Your task to perform on an android device: Go to privacy settings Image 0: 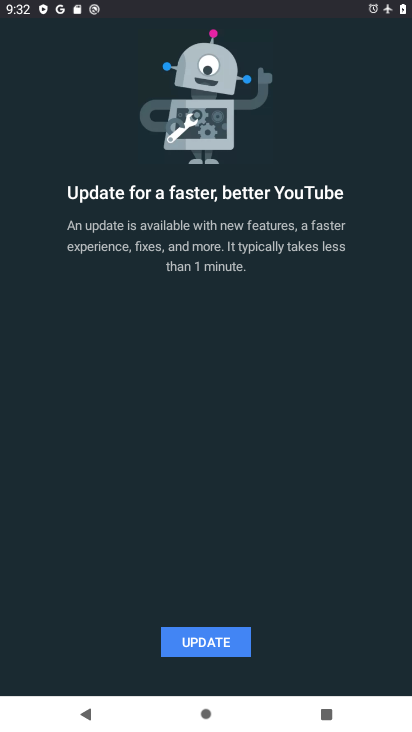
Step 0: press home button
Your task to perform on an android device: Go to privacy settings Image 1: 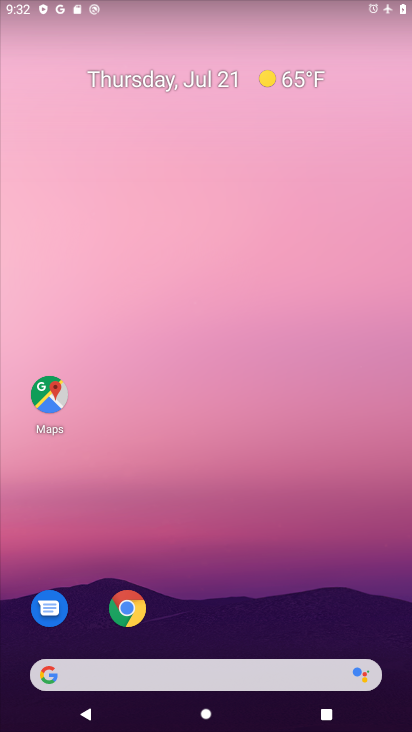
Step 1: drag from (230, 525) to (204, 209)
Your task to perform on an android device: Go to privacy settings Image 2: 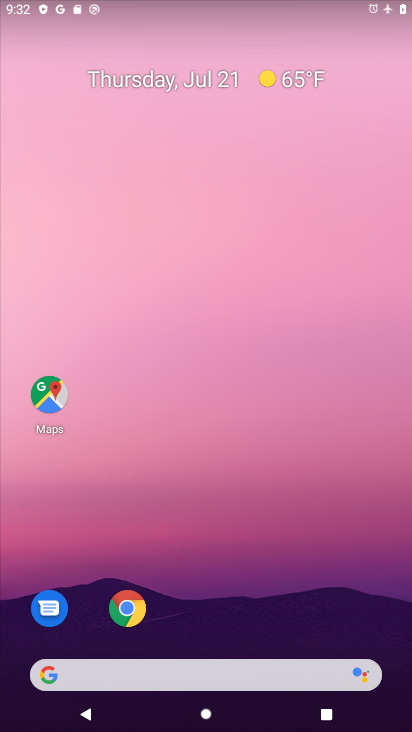
Step 2: drag from (198, 555) to (198, 197)
Your task to perform on an android device: Go to privacy settings Image 3: 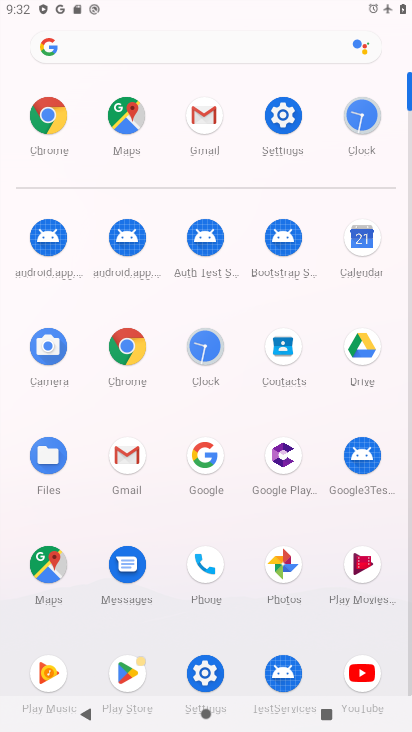
Step 3: click (287, 116)
Your task to perform on an android device: Go to privacy settings Image 4: 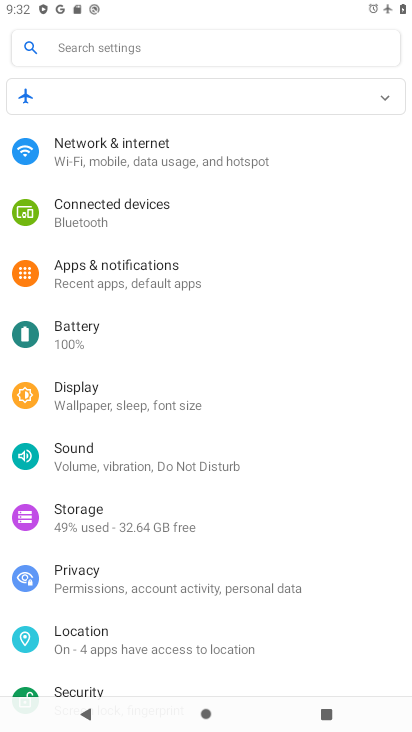
Step 4: click (86, 569)
Your task to perform on an android device: Go to privacy settings Image 5: 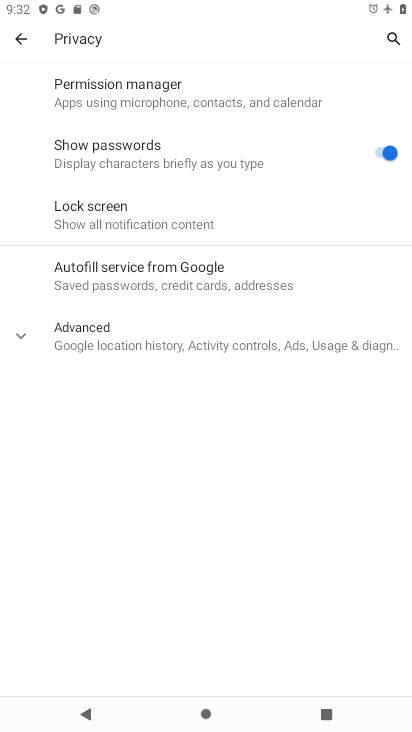
Step 5: task complete